Your task to perform on an android device: Turn on the flashlight Image 0: 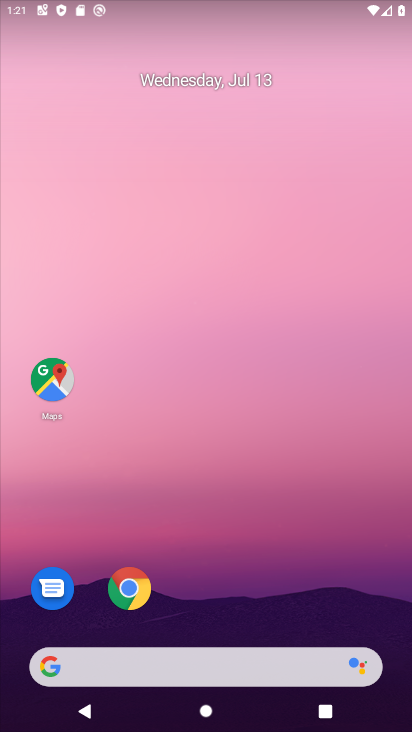
Step 0: drag from (221, 5) to (247, 575)
Your task to perform on an android device: Turn on the flashlight Image 1: 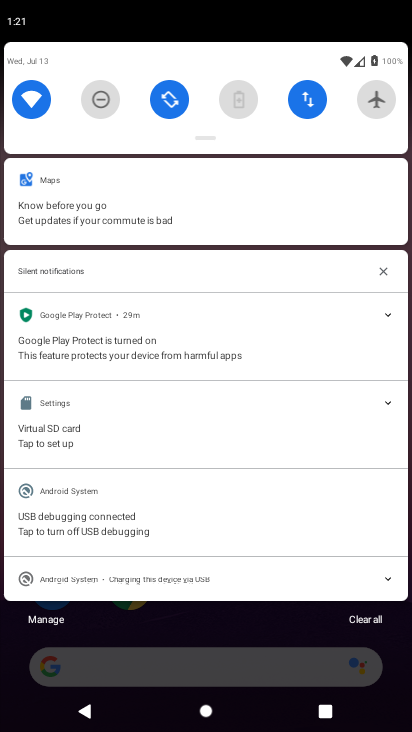
Step 1: drag from (225, 107) to (297, 576)
Your task to perform on an android device: Turn on the flashlight Image 2: 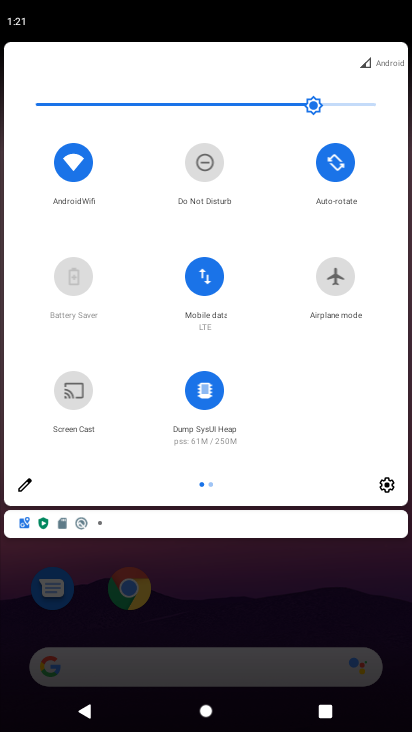
Step 2: drag from (366, 357) to (1, 423)
Your task to perform on an android device: Turn on the flashlight Image 3: 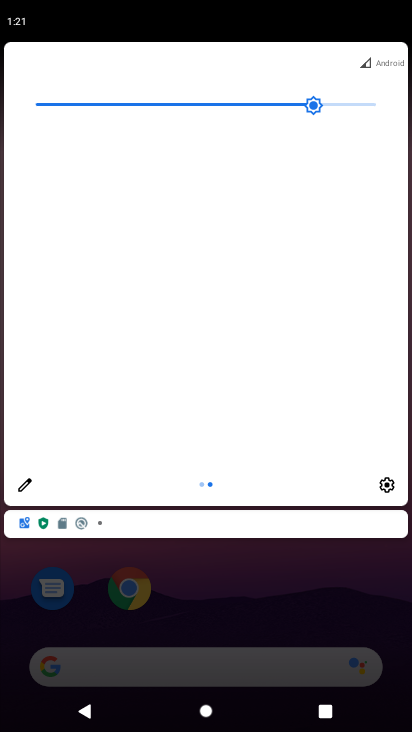
Step 3: click (26, 483)
Your task to perform on an android device: Turn on the flashlight Image 4: 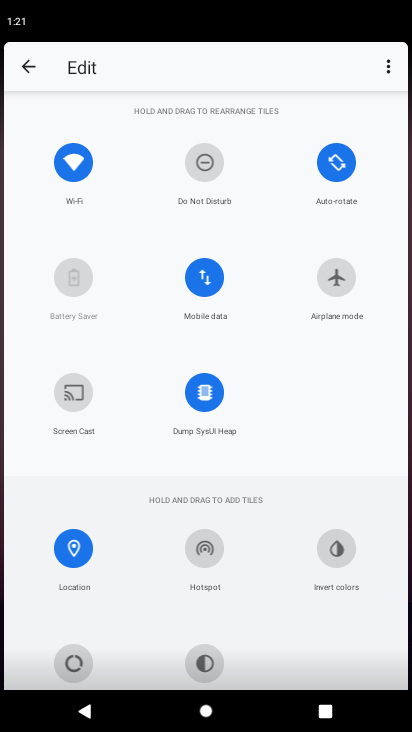
Step 4: task complete